Your task to perform on an android device: check out phone information Image 0: 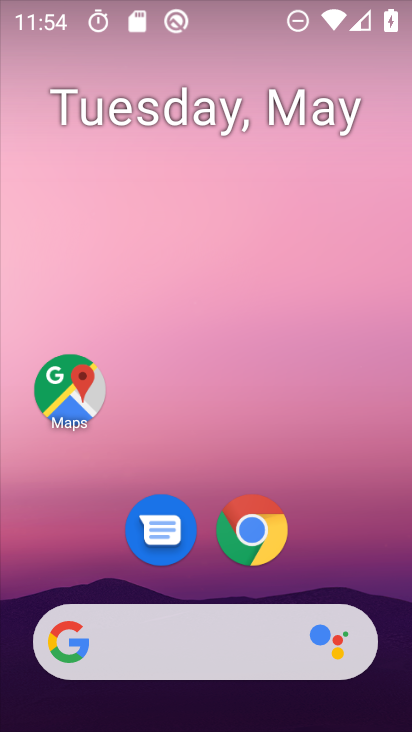
Step 0: drag from (163, 622) to (197, 16)
Your task to perform on an android device: check out phone information Image 1: 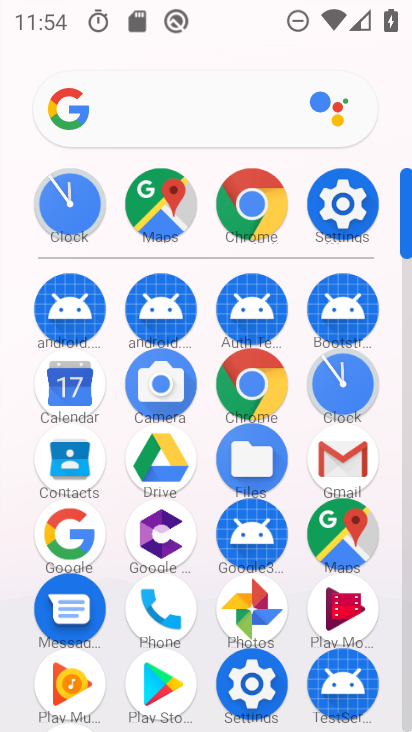
Step 1: click (339, 187)
Your task to perform on an android device: check out phone information Image 2: 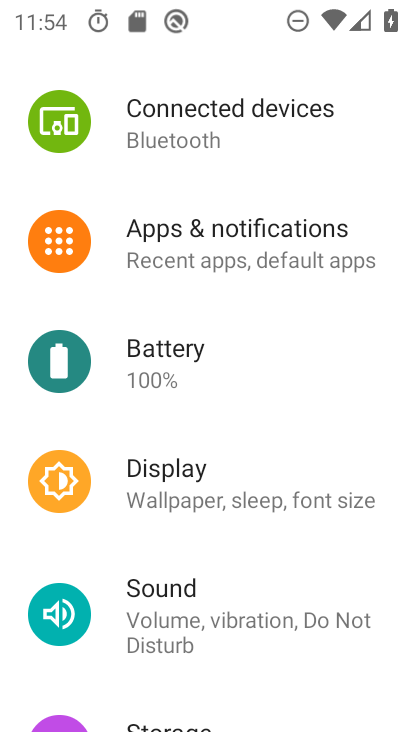
Step 2: drag from (241, 663) to (239, 157)
Your task to perform on an android device: check out phone information Image 3: 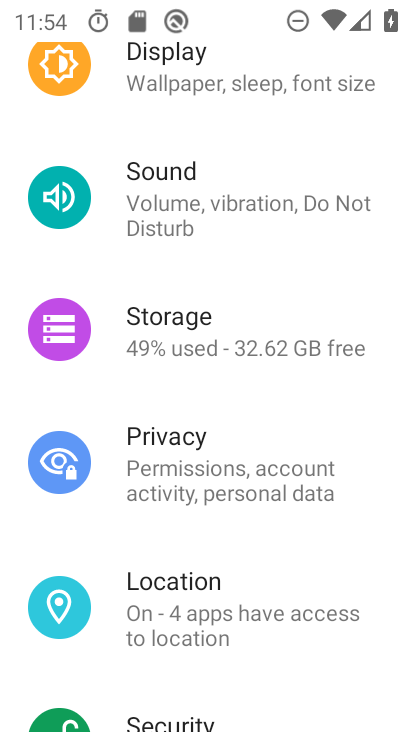
Step 3: drag from (241, 608) to (246, 176)
Your task to perform on an android device: check out phone information Image 4: 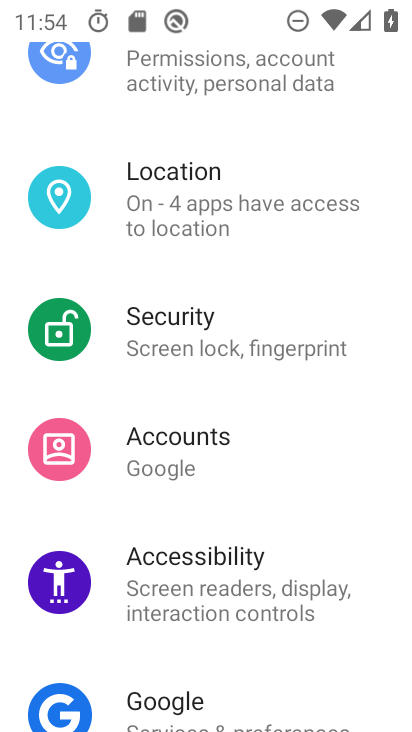
Step 4: drag from (232, 683) to (246, 390)
Your task to perform on an android device: check out phone information Image 5: 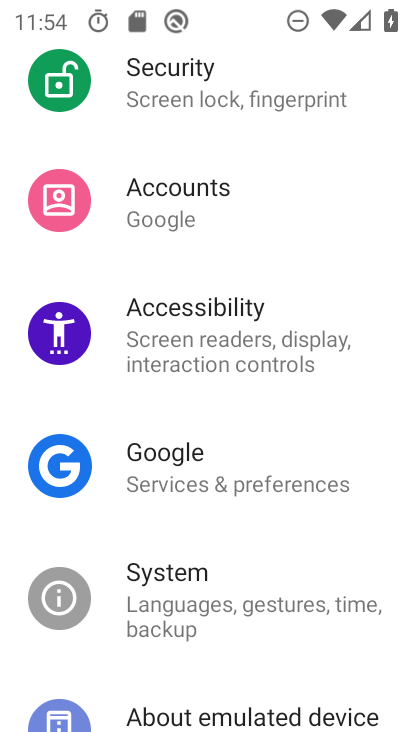
Step 5: drag from (207, 630) to (270, 225)
Your task to perform on an android device: check out phone information Image 6: 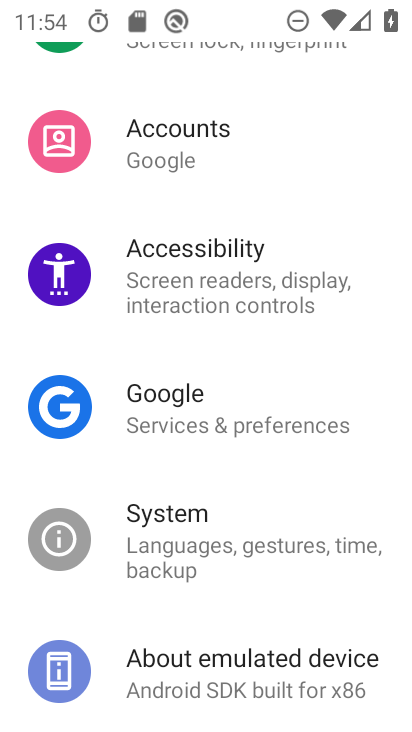
Step 6: click (297, 681)
Your task to perform on an android device: check out phone information Image 7: 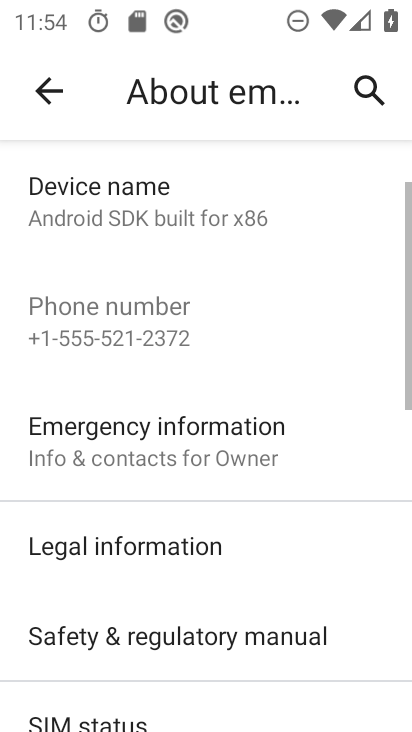
Step 7: task complete